Your task to perform on an android device: turn off picture-in-picture Image 0: 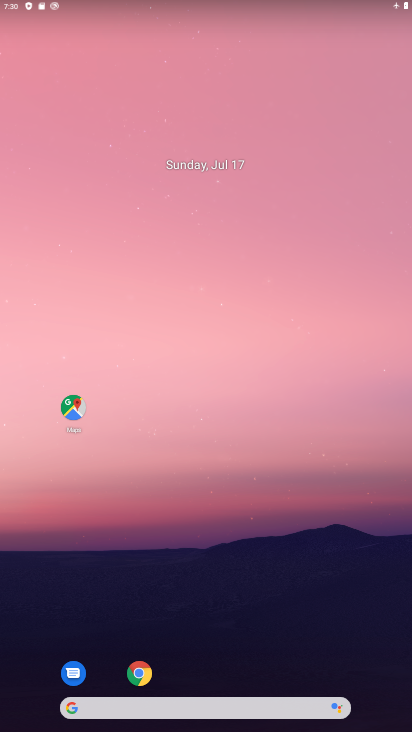
Step 0: click (136, 671)
Your task to perform on an android device: turn off picture-in-picture Image 1: 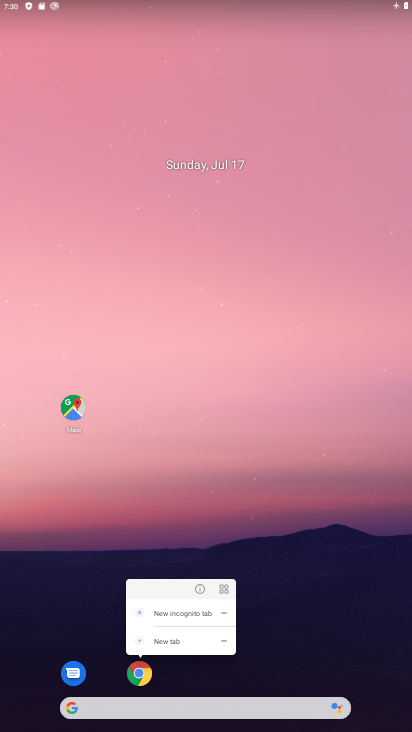
Step 1: click (199, 590)
Your task to perform on an android device: turn off picture-in-picture Image 2: 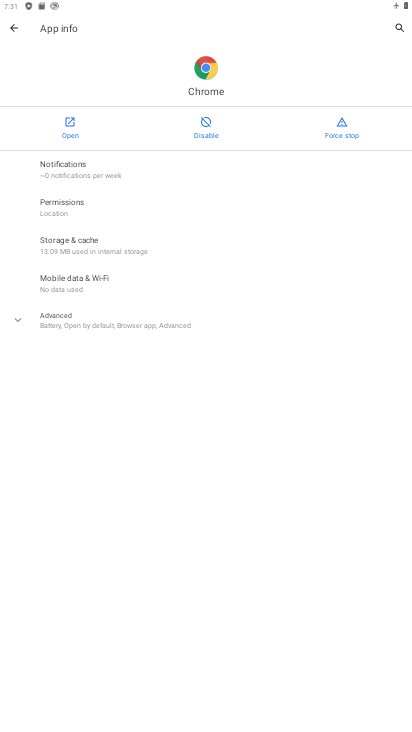
Step 2: click (80, 327)
Your task to perform on an android device: turn off picture-in-picture Image 3: 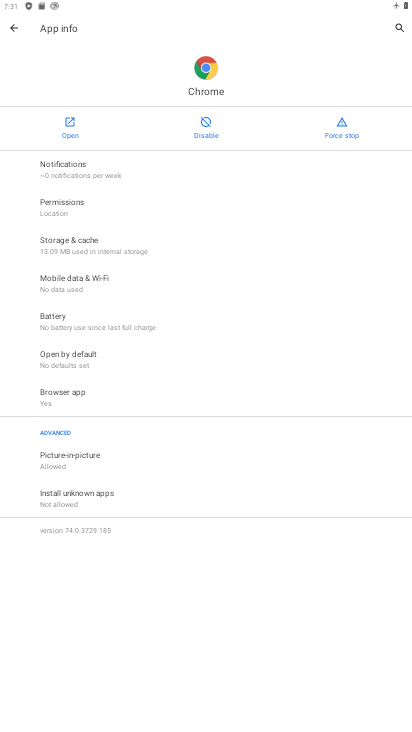
Step 3: click (92, 471)
Your task to perform on an android device: turn off picture-in-picture Image 4: 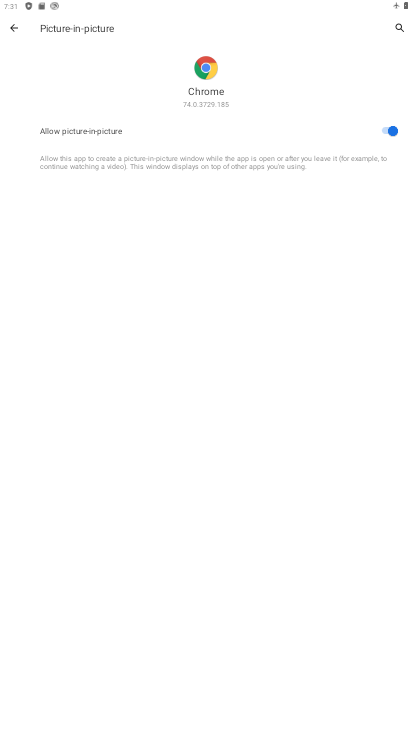
Step 4: click (397, 133)
Your task to perform on an android device: turn off picture-in-picture Image 5: 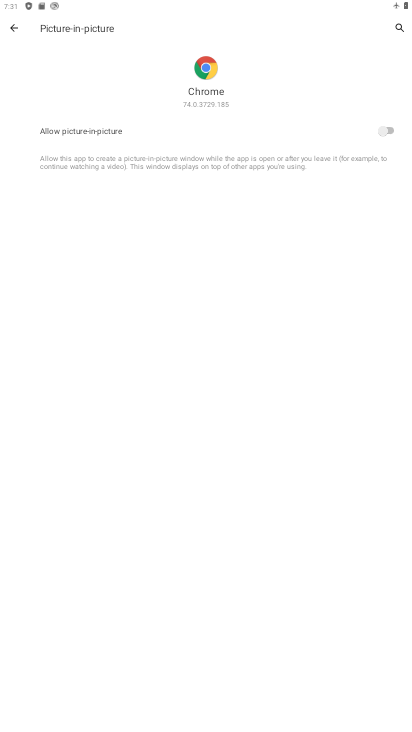
Step 5: task complete